Your task to perform on an android device: Go to ESPN.com Image 0: 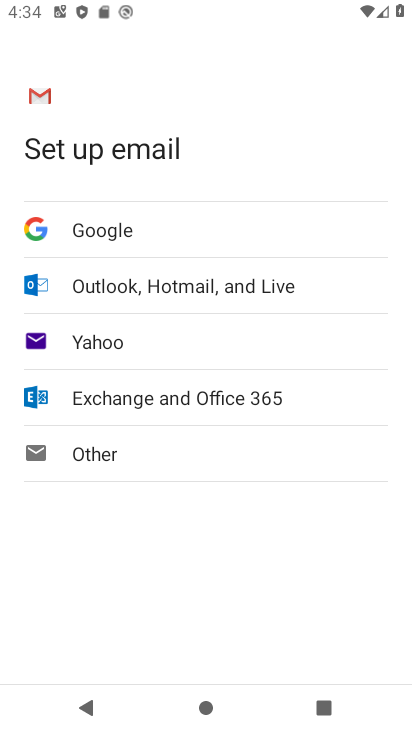
Step 0: press home button
Your task to perform on an android device: Go to ESPN.com Image 1: 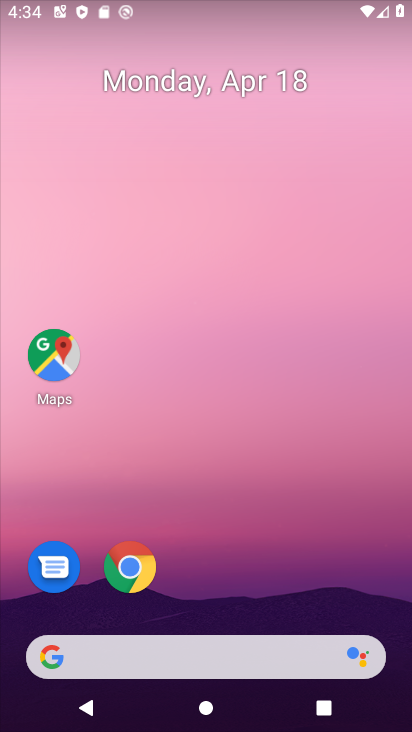
Step 1: click (131, 572)
Your task to perform on an android device: Go to ESPN.com Image 2: 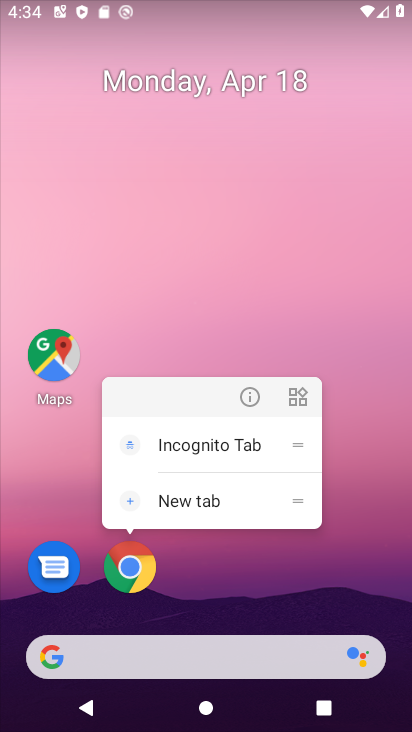
Step 2: click (131, 572)
Your task to perform on an android device: Go to ESPN.com Image 3: 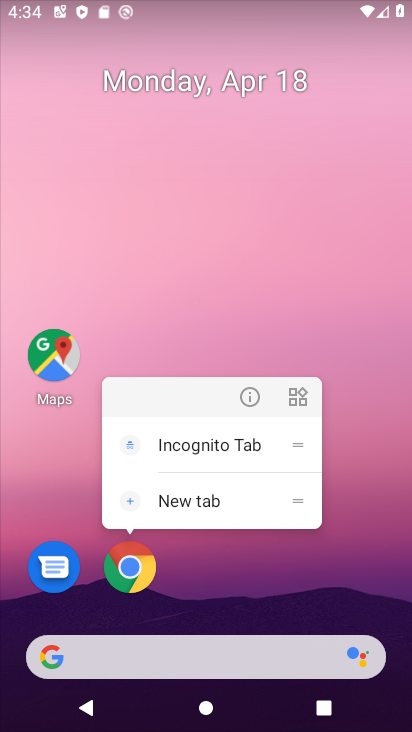
Step 3: click (131, 572)
Your task to perform on an android device: Go to ESPN.com Image 4: 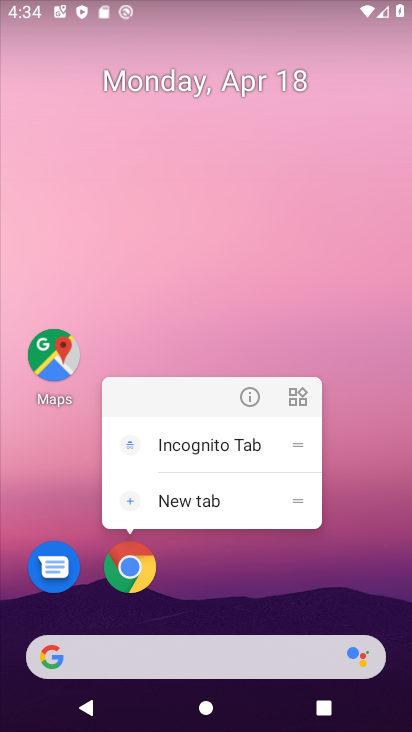
Step 4: click (131, 572)
Your task to perform on an android device: Go to ESPN.com Image 5: 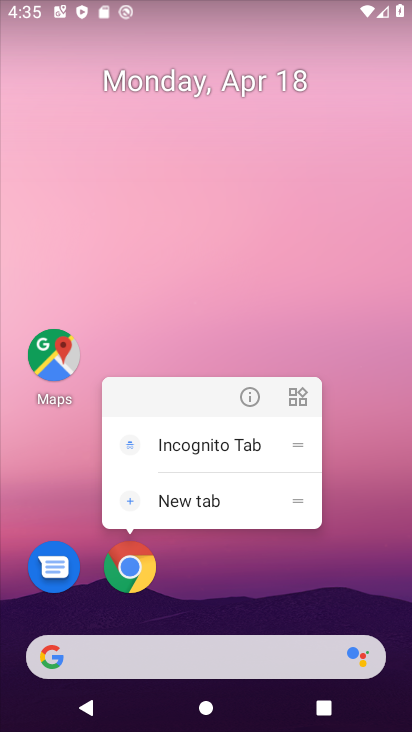
Step 5: click (131, 572)
Your task to perform on an android device: Go to ESPN.com Image 6: 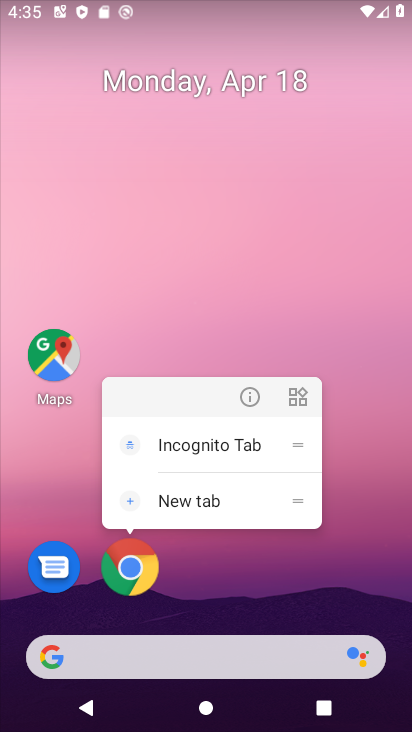
Step 6: click (131, 572)
Your task to perform on an android device: Go to ESPN.com Image 7: 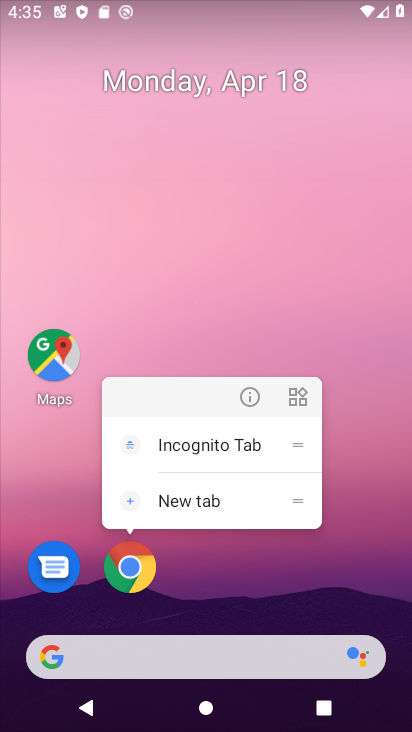
Step 7: click (131, 572)
Your task to perform on an android device: Go to ESPN.com Image 8: 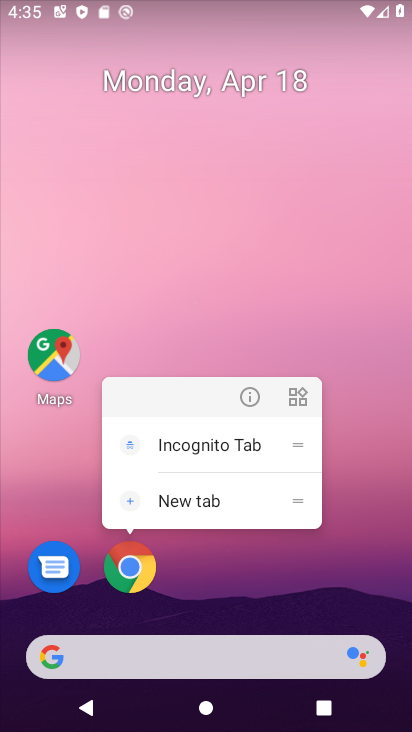
Step 8: click (131, 572)
Your task to perform on an android device: Go to ESPN.com Image 9: 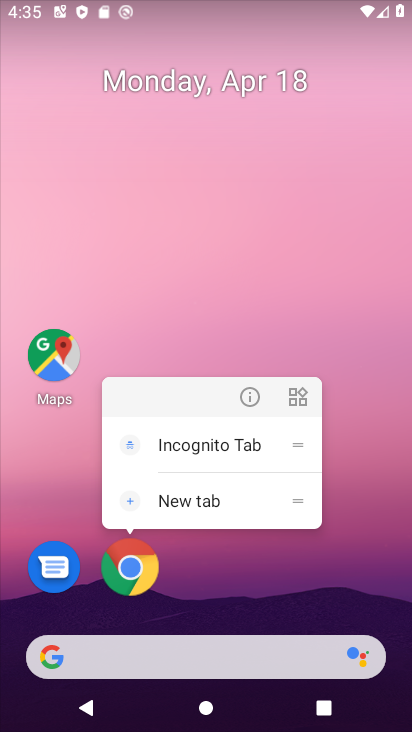
Step 9: click (131, 572)
Your task to perform on an android device: Go to ESPN.com Image 10: 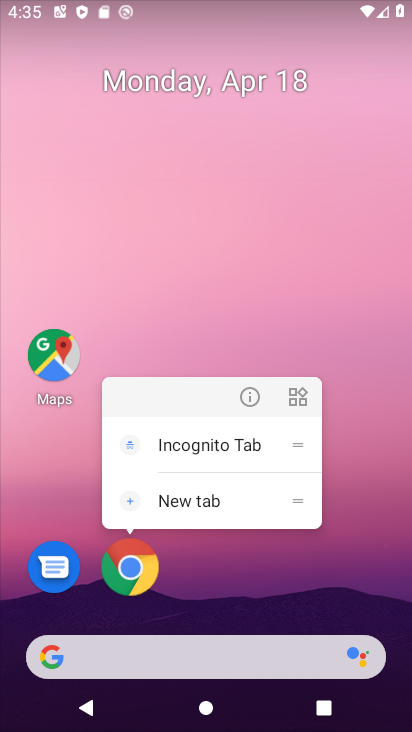
Step 10: click (131, 572)
Your task to perform on an android device: Go to ESPN.com Image 11: 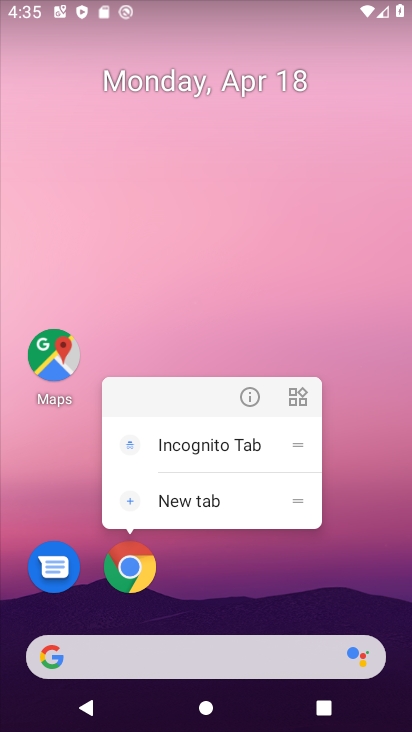
Step 11: click (131, 572)
Your task to perform on an android device: Go to ESPN.com Image 12: 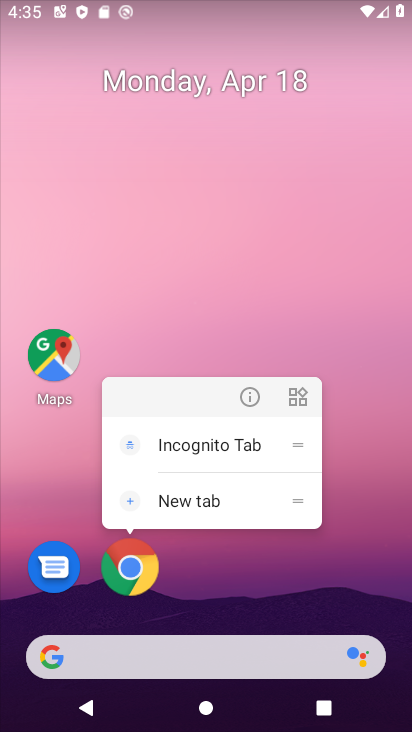
Step 12: click (131, 572)
Your task to perform on an android device: Go to ESPN.com Image 13: 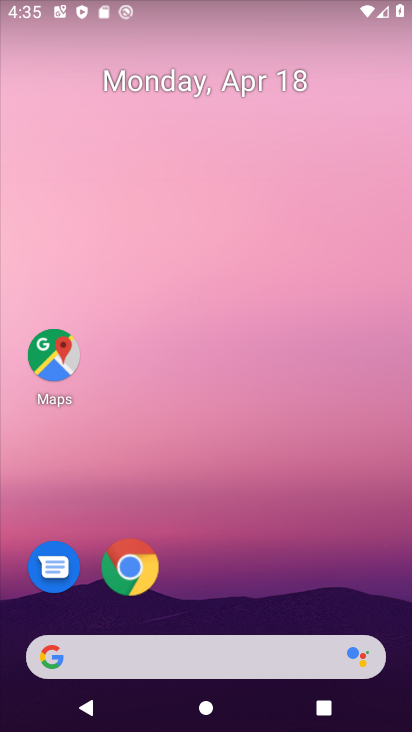
Step 13: click (131, 572)
Your task to perform on an android device: Go to ESPN.com Image 14: 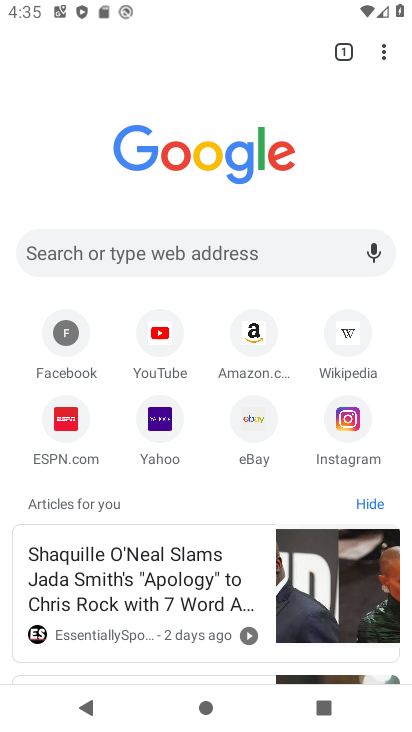
Step 14: click (240, 259)
Your task to perform on an android device: Go to ESPN.com Image 15: 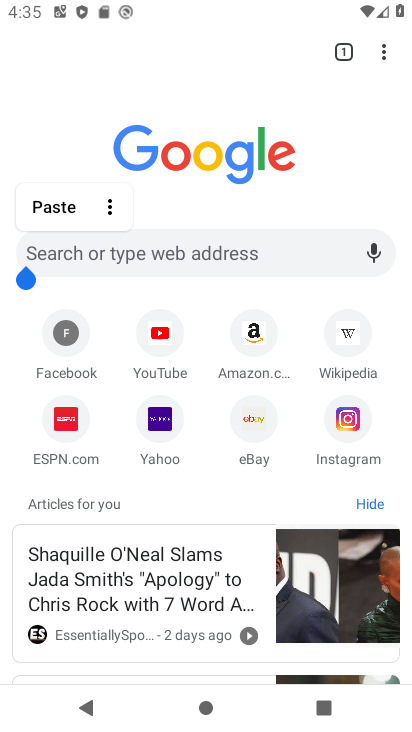
Step 15: click (240, 259)
Your task to perform on an android device: Go to ESPN.com Image 16: 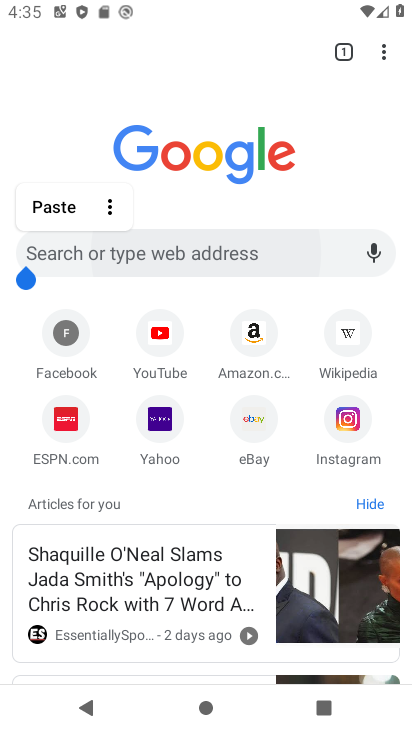
Step 16: click (240, 259)
Your task to perform on an android device: Go to ESPN.com Image 17: 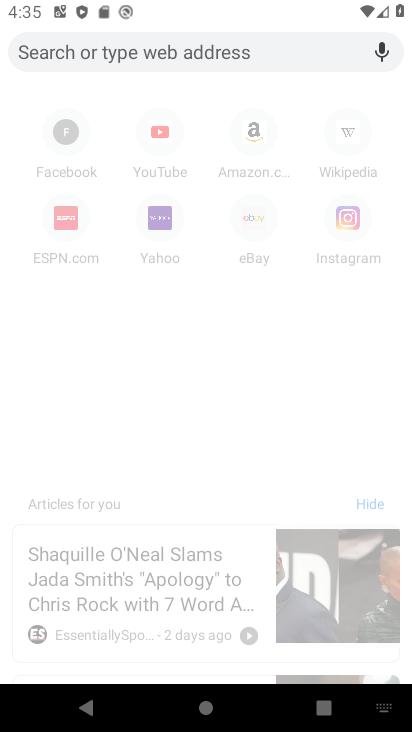
Step 17: type "espn.com"
Your task to perform on an android device: Go to ESPN.com Image 18: 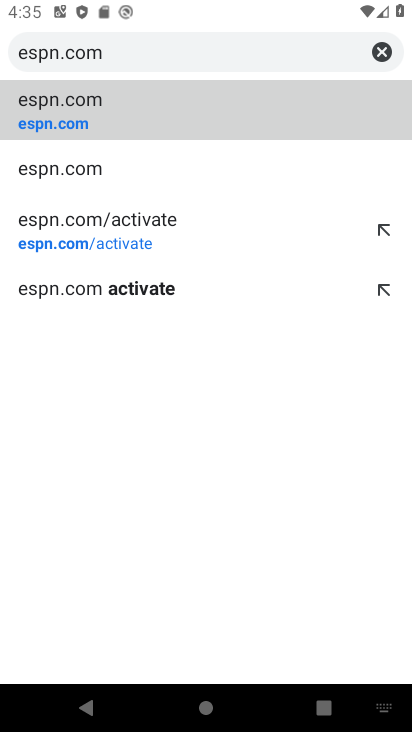
Step 18: click (68, 93)
Your task to perform on an android device: Go to ESPN.com Image 19: 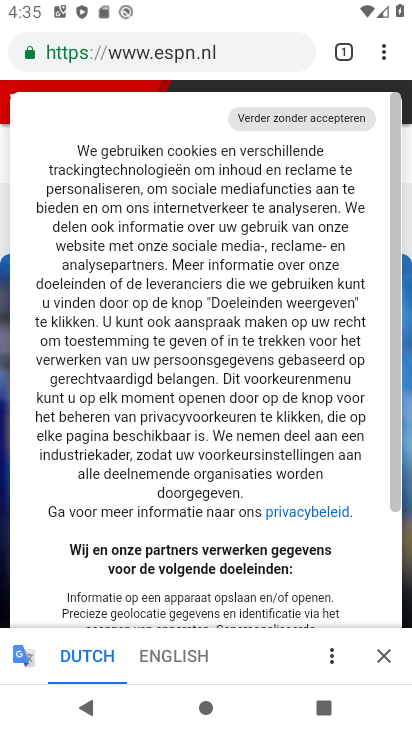
Step 19: task complete